Your task to perform on an android device: turn on location history Image 0: 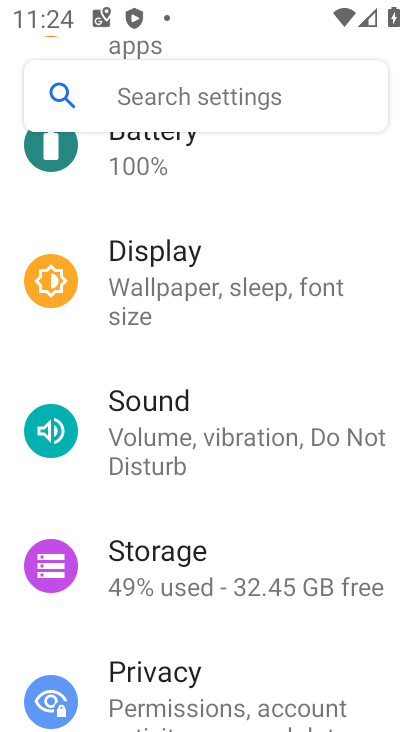
Step 0: drag from (250, 282) to (237, 93)
Your task to perform on an android device: turn on location history Image 1: 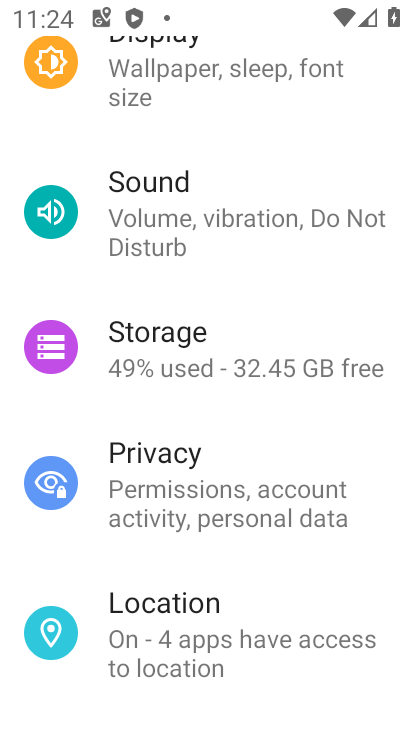
Step 1: click (170, 616)
Your task to perform on an android device: turn on location history Image 2: 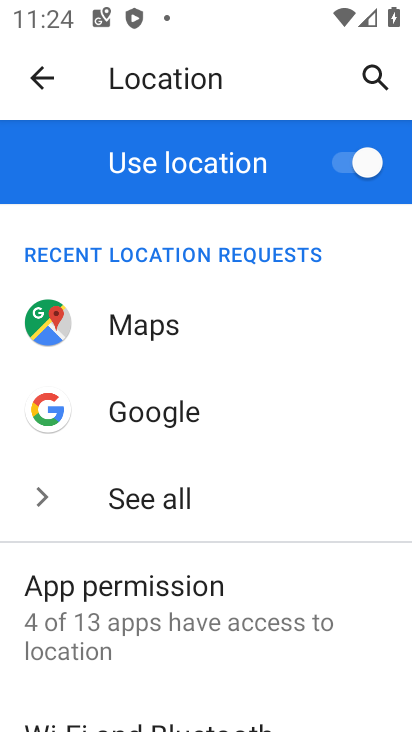
Step 2: drag from (218, 569) to (246, 195)
Your task to perform on an android device: turn on location history Image 3: 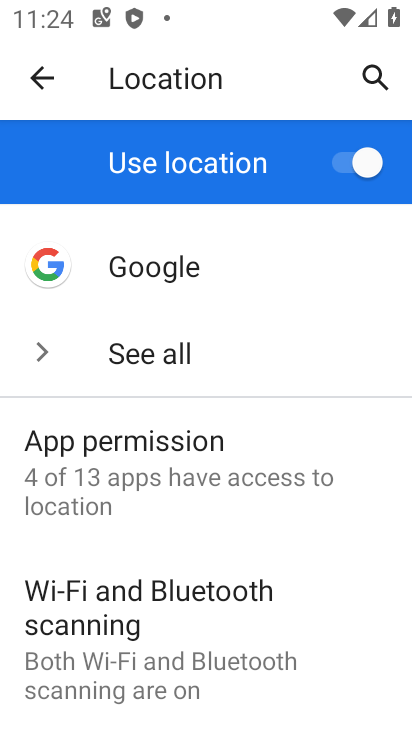
Step 3: drag from (228, 643) to (224, 282)
Your task to perform on an android device: turn on location history Image 4: 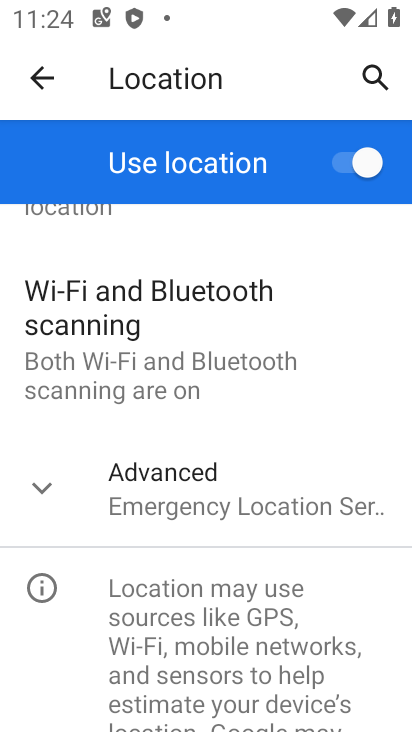
Step 4: click (165, 505)
Your task to perform on an android device: turn on location history Image 5: 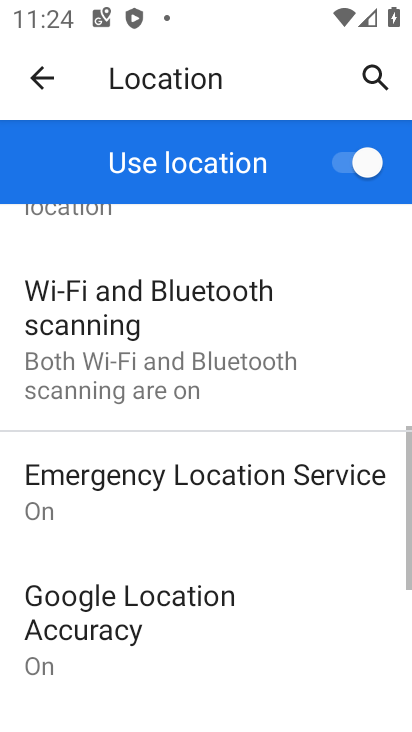
Step 5: drag from (227, 624) to (219, 316)
Your task to perform on an android device: turn on location history Image 6: 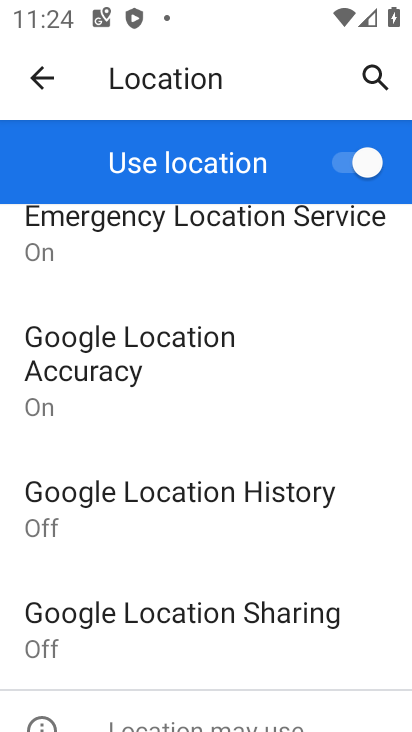
Step 6: click (159, 503)
Your task to perform on an android device: turn on location history Image 7: 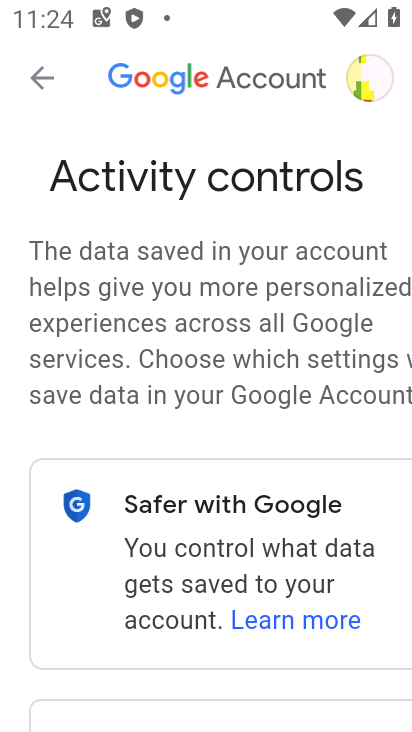
Step 7: task complete